Your task to perform on an android device: allow cookies in the chrome app Image 0: 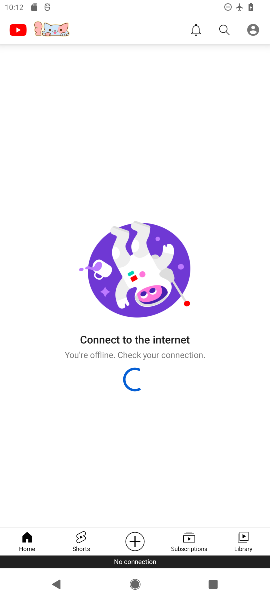
Step 0: press back button
Your task to perform on an android device: allow cookies in the chrome app Image 1: 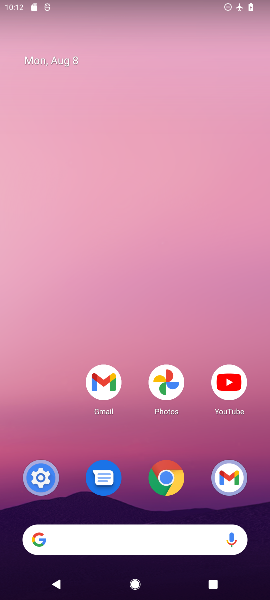
Step 1: click (168, 481)
Your task to perform on an android device: allow cookies in the chrome app Image 2: 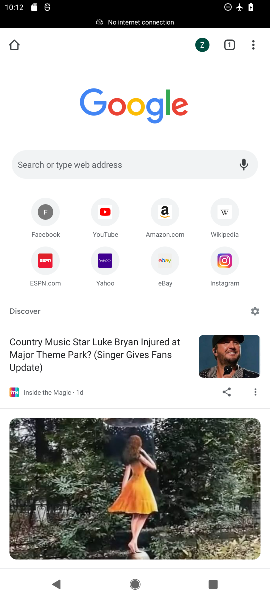
Step 2: drag from (255, 44) to (145, 330)
Your task to perform on an android device: allow cookies in the chrome app Image 3: 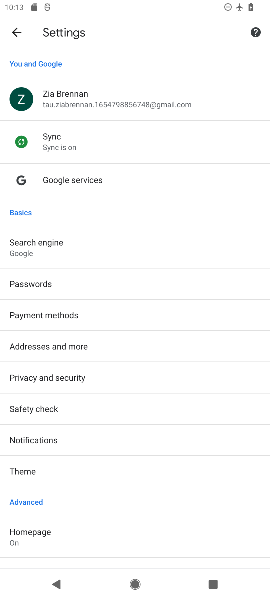
Step 3: drag from (89, 517) to (109, 138)
Your task to perform on an android device: allow cookies in the chrome app Image 4: 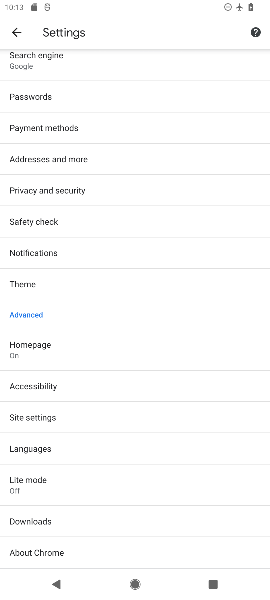
Step 4: click (49, 415)
Your task to perform on an android device: allow cookies in the chrome app Image 5: 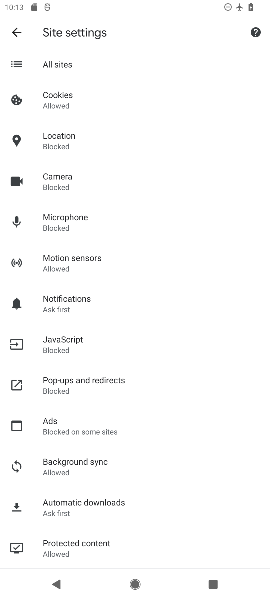
Step 5: click (65, 104)
Your task to perform on an android device: allow cookies in the chrome app Image 6: 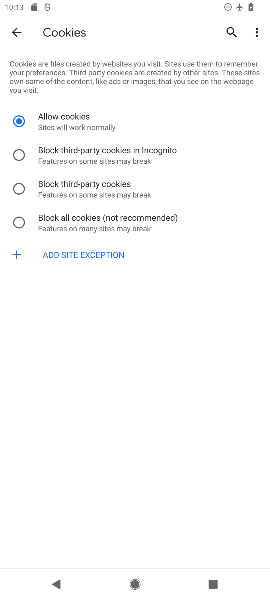
Step 6: task complete